Your task to perform on an android device: refresh tabs in the chrome app Image 0: 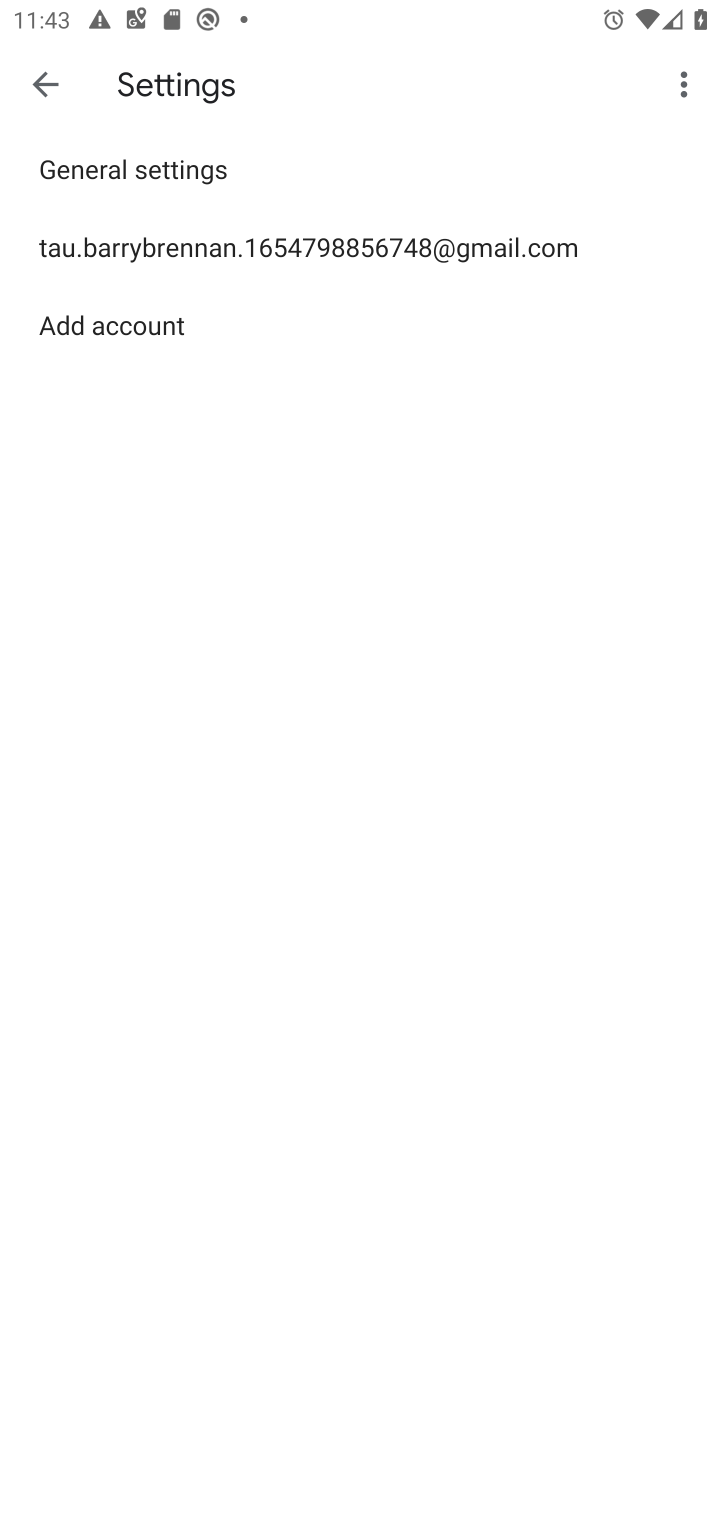
Step 0: press home button
Your task to perform on an android device: refresh tabs in the chrome app Image 1: 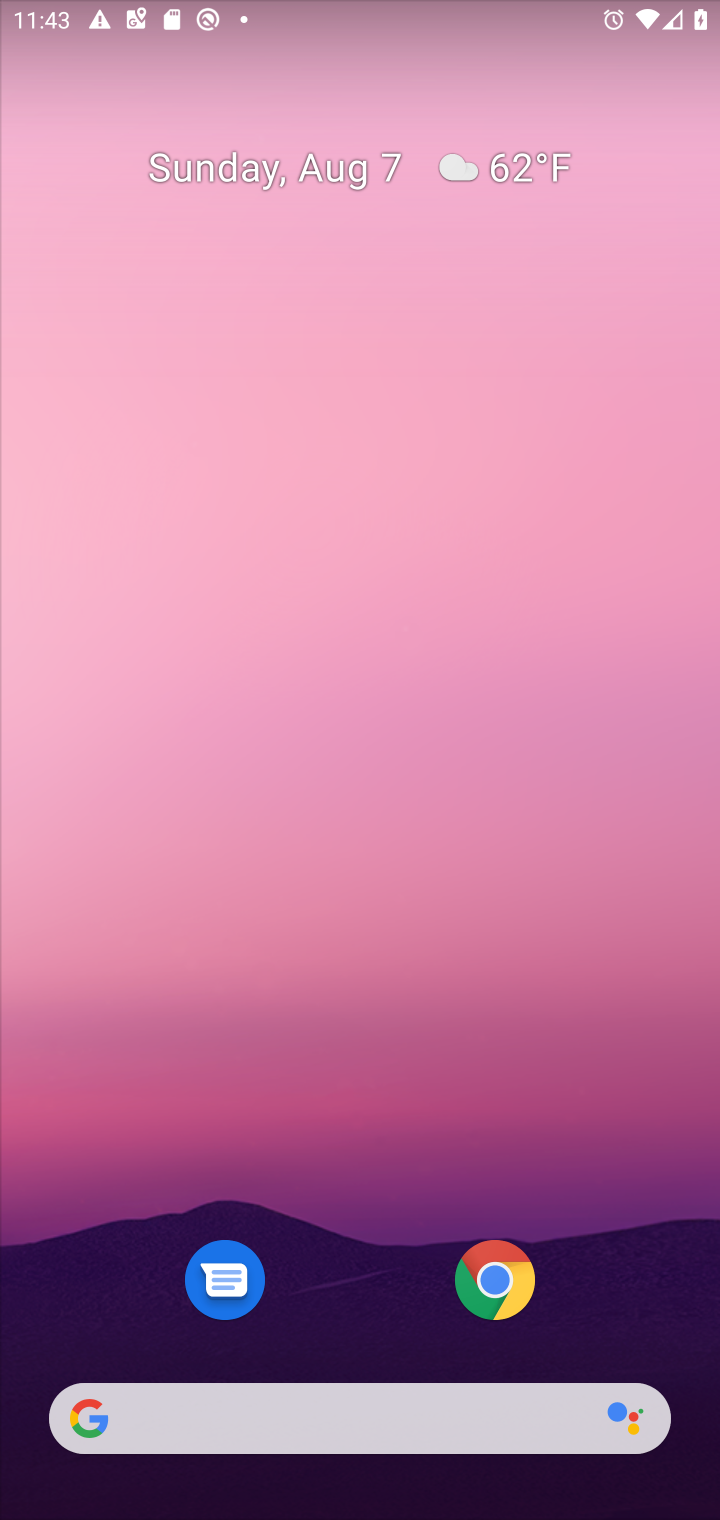
Step 1: click (490, 1285)
Your task to perform on an android device: refresh tabs in the chrome app Image 2: 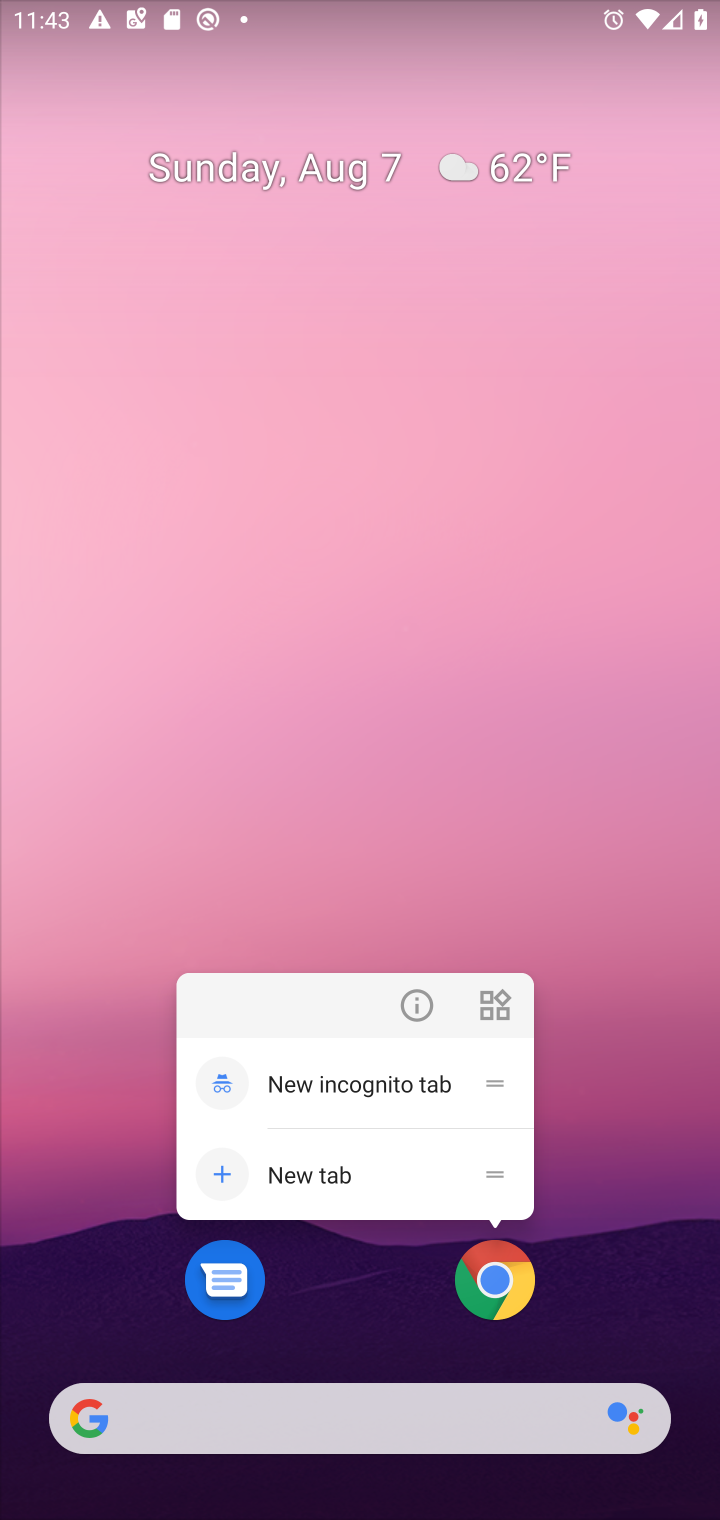
Step 2: click (490, 1291)
Your task to perform on an android device: refresh tabs in the chrome app Image 3: 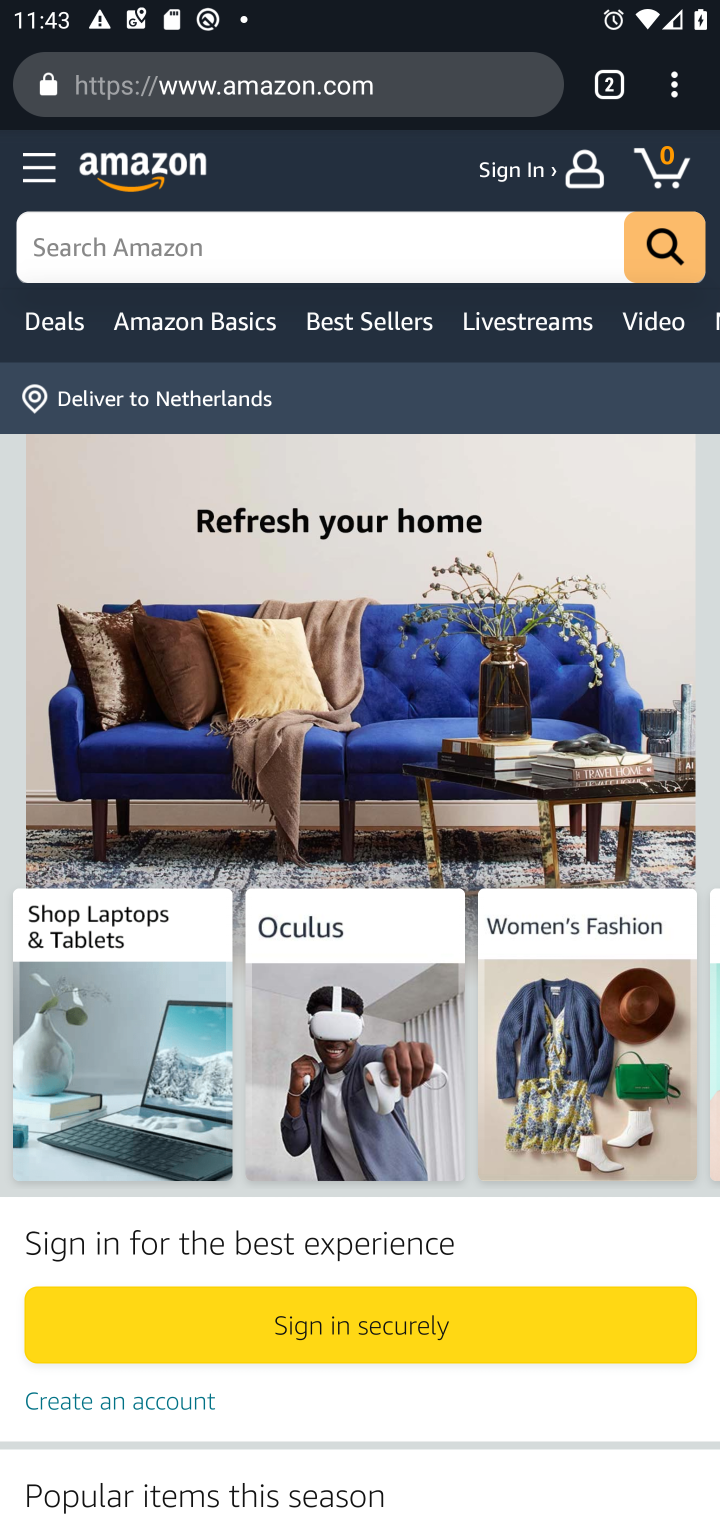
Step 3: click (677, 98)
Your task to perform on an android device: refresh tabs in the chrome app Image 4: 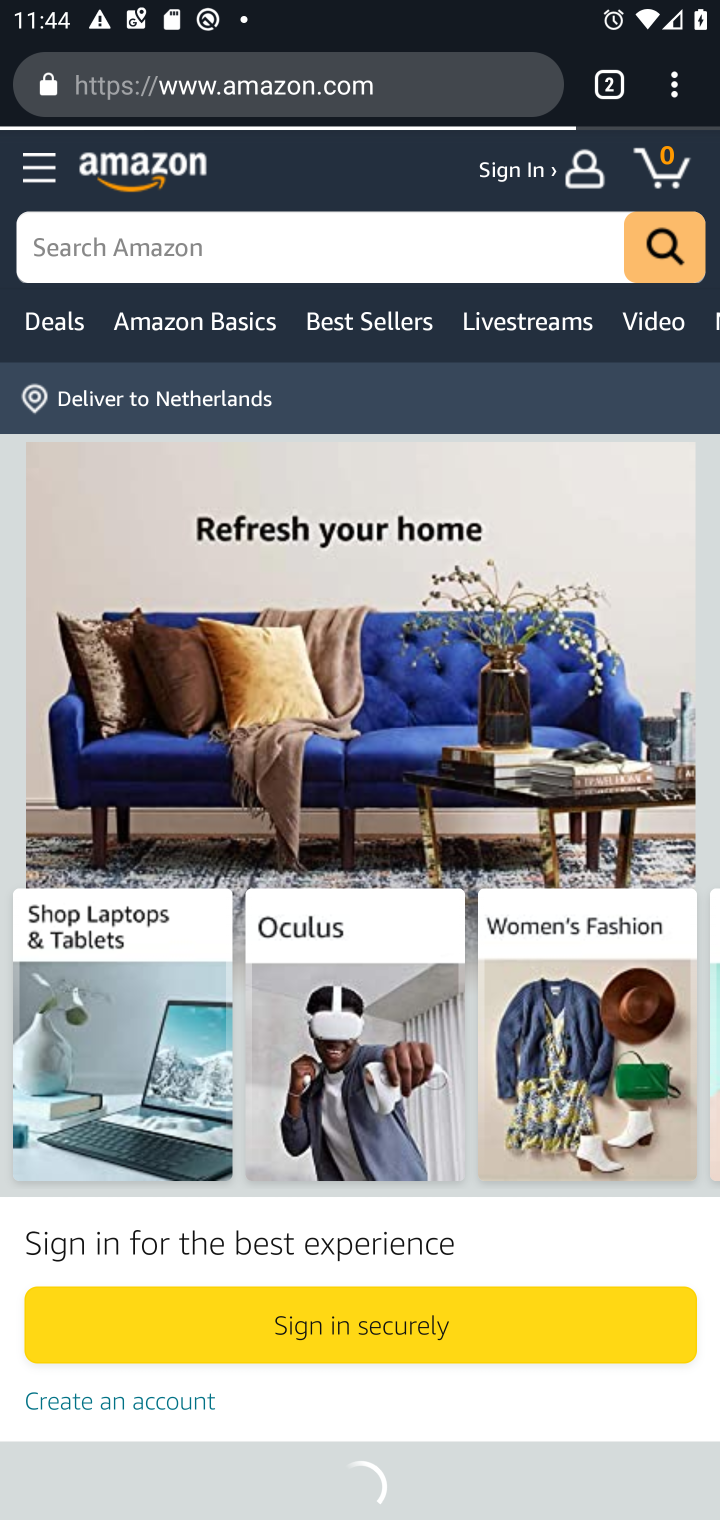
Step 4: task complete